Your task to perform on an android device: toggle data saver in the chrome app Image 0: 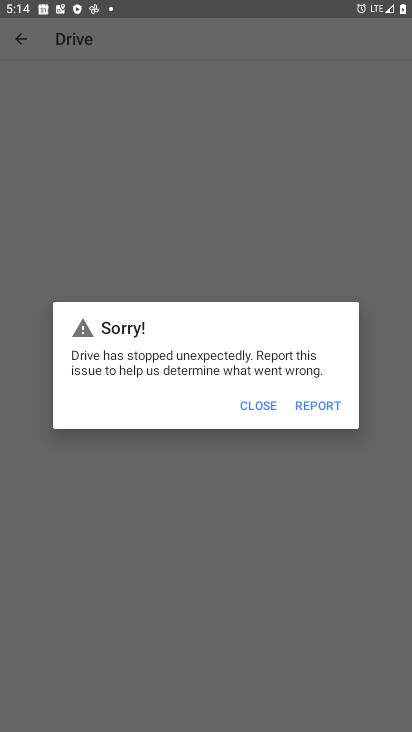
Step 0: press home button
Your task to perform on an android device: toggle data saver in the chrome app Image 1: 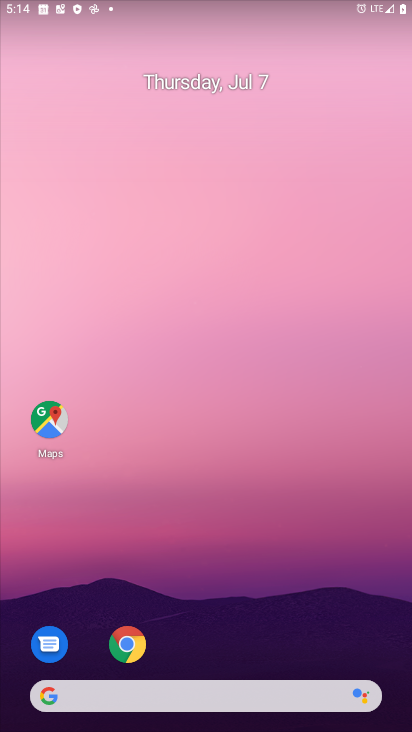
Step 1: click (128, 643)
Your task to perform on an android device: toggle data saver in the chrome app Image 2: 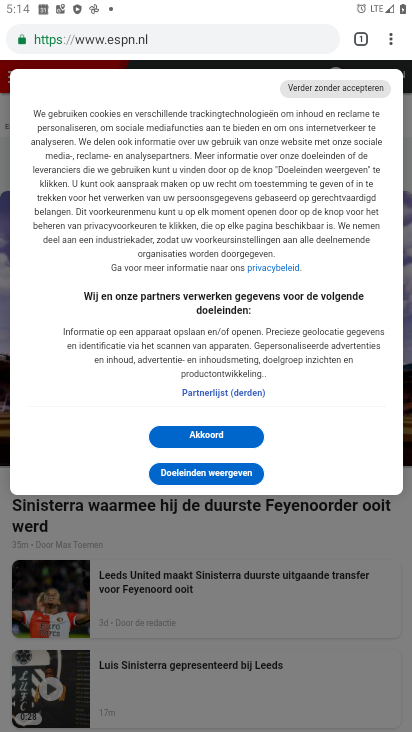
Step 2: click (392, 41)
Your task to perform on an android device: toggle data saver in the chrome app Image 3: 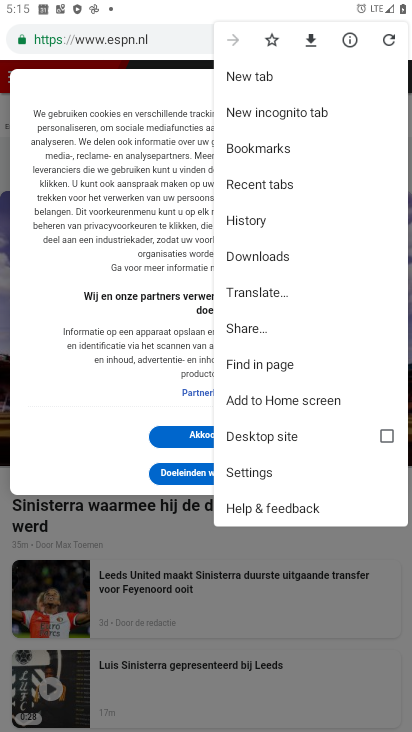
Step 3: click (252, 469)
Your task to perform on an android device: toggle data saver in the chrome app Image 4: 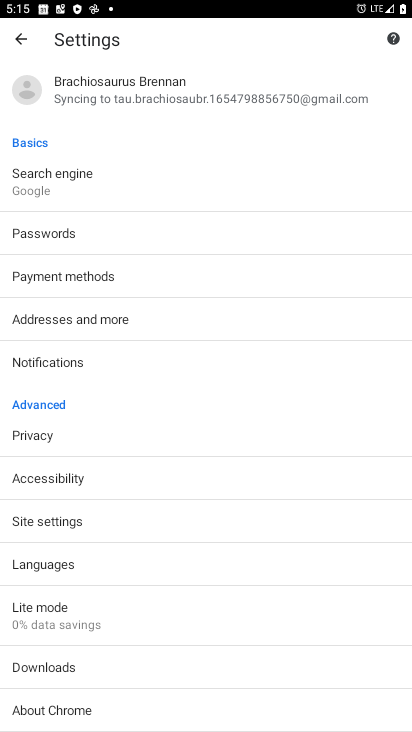
Step 4: click (63, 611)
Your task to perform on an android device: toggle data saver in the chrome app Image 5: 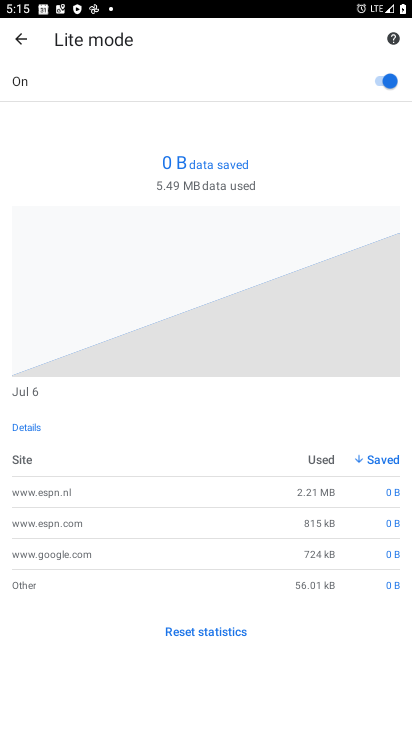
Step 5: task complete